Your task to perform on an android device: Open my contact list Image 0: 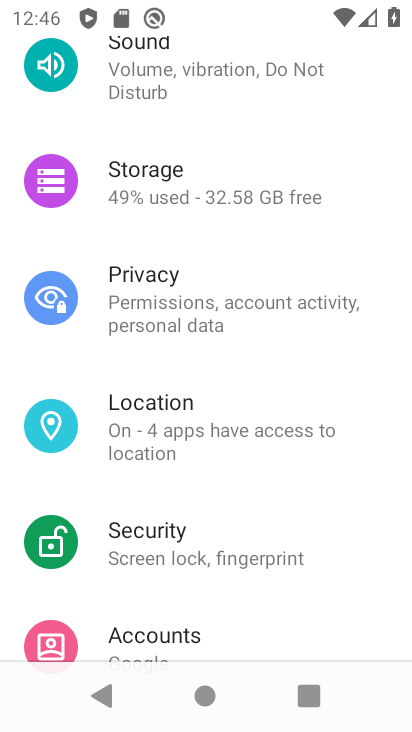
Step 0: press home button
Your task to perform on an android device: Open my contact list Image 1: 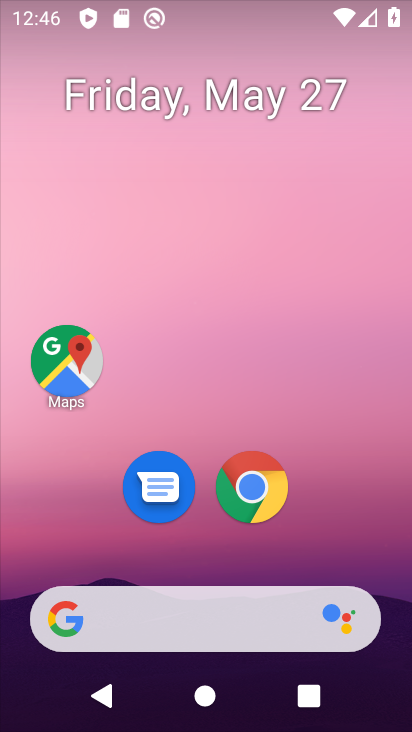
Step 1: drag from (151, 728) to (108, 80)
Your task to perform on an android device: Open my contact list Image 2: 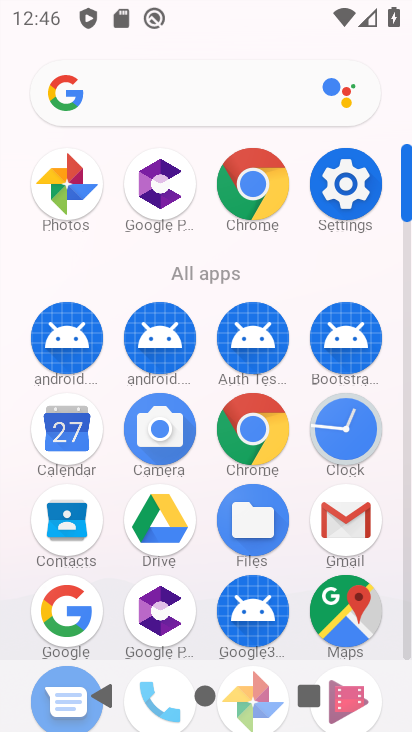
Step 2: click (79, 534)
Your task to perform on an android device: Open my contact list Image 3: 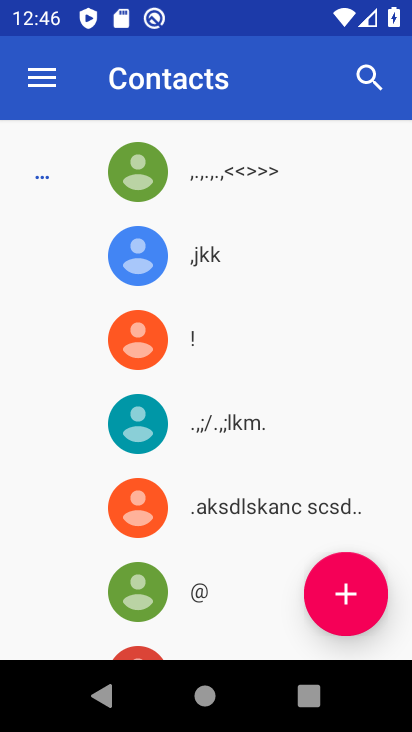
Step 3: task complete